Your task to perform on an android device: Open Yahoo.com Image 0: 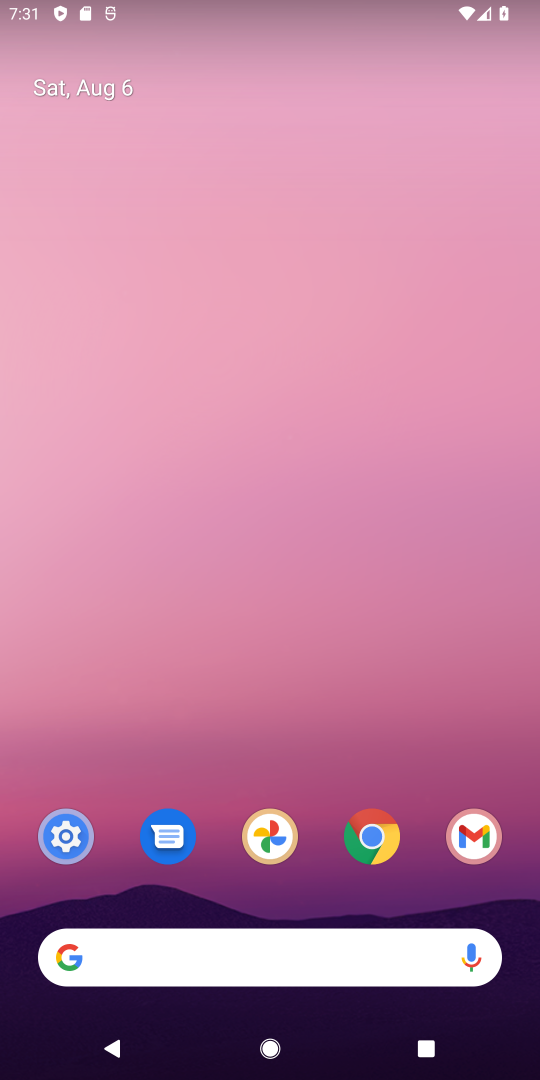
Step 0: drag from (242, 944) to (335, 283)
Your task to perform on an android device: Open Yahoo.com Image 1: 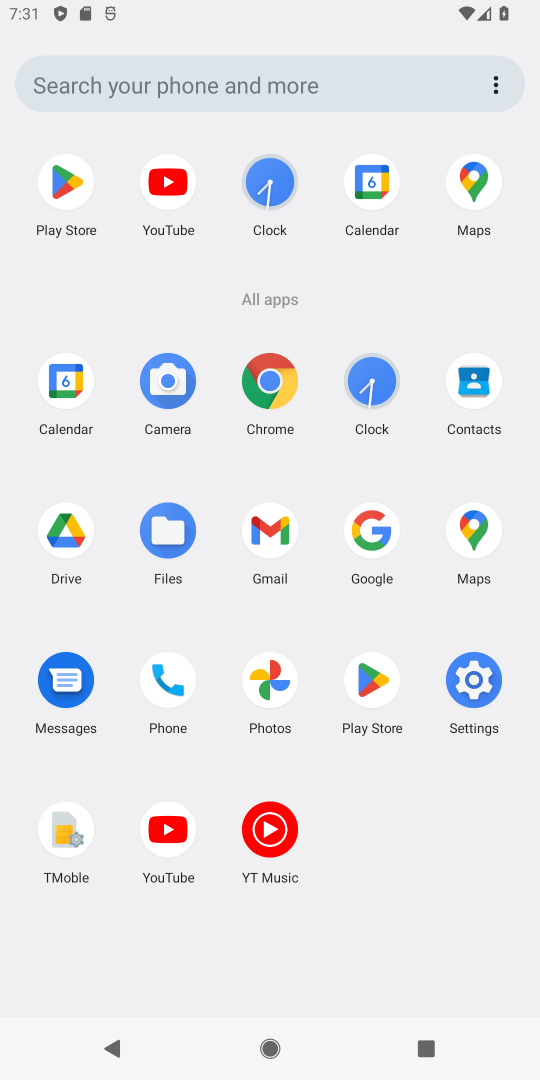
Step 1: click (375, 532)
Your task to perform on an android device: Open Yahoo.com Image 2: 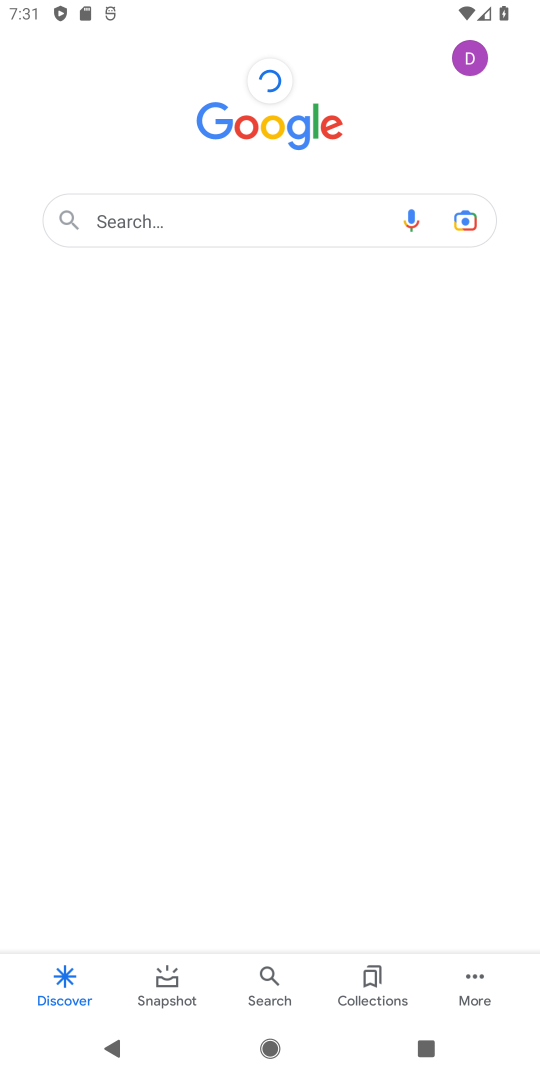
Step 2: click (256, 218)
Your task to perform on an android device: Open Yahoo.com Image 3: 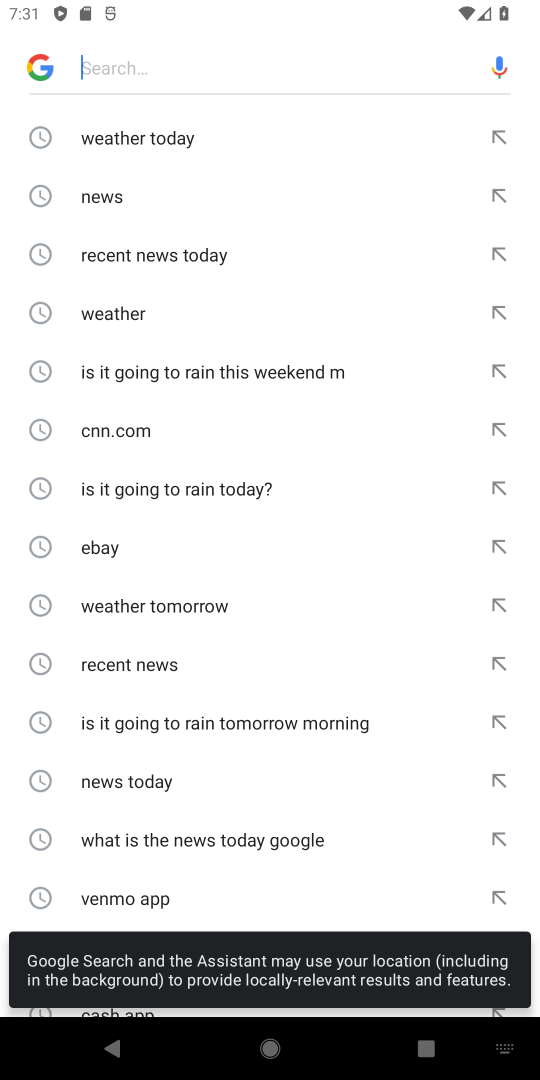
Step 3: drag from (123, 867) to (209, 406)
Your task to perform on an android device: Open Yahoo.com Image 4: 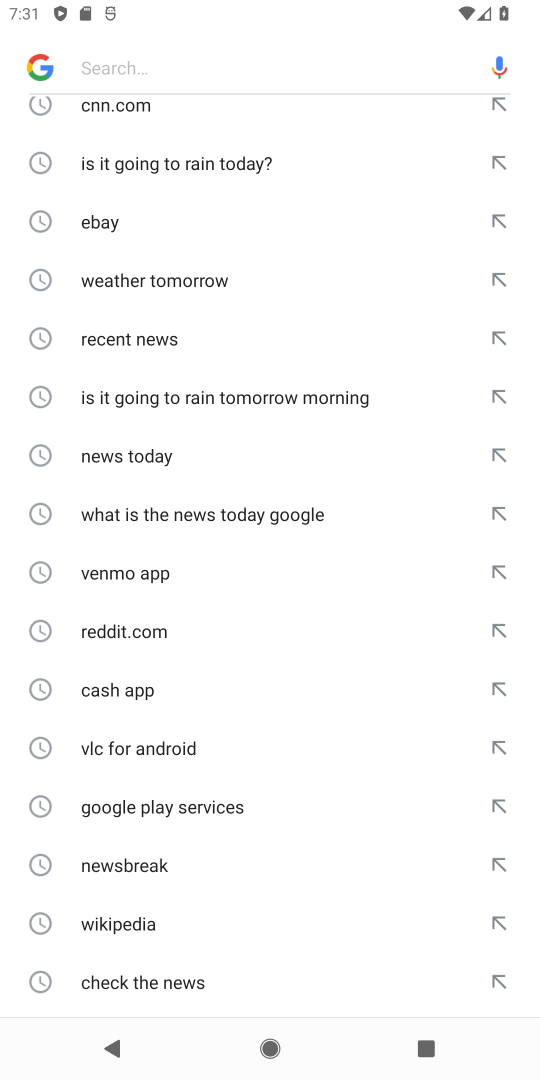
Step 4: drag from (132, 994) to (207, 506)
Your task to perform on an android device: Open Yahoo.com Image 5: 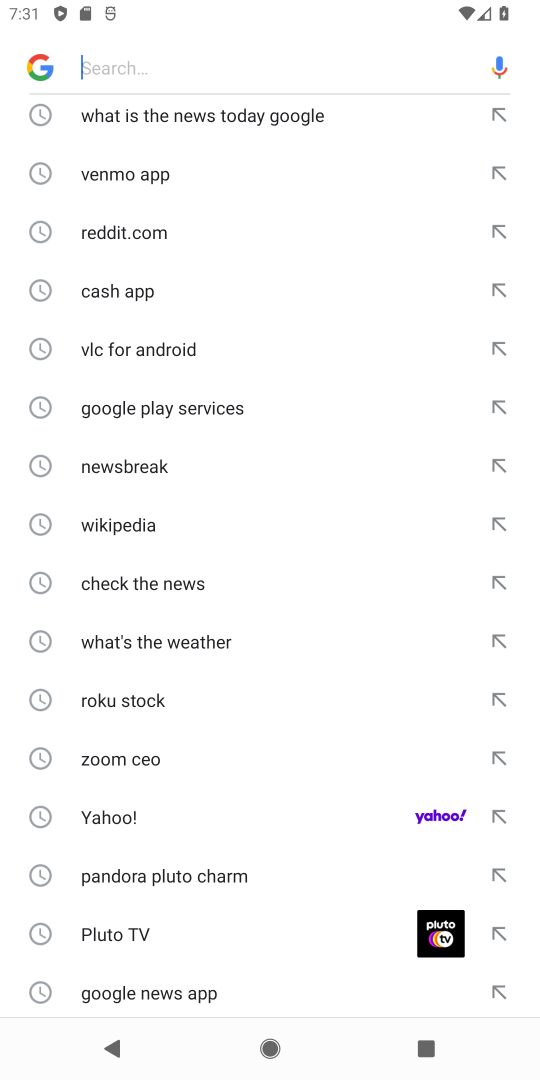
Step 5: click (124, 828)
Your task to perform on an android device: Open Yahoo.com Image 6: 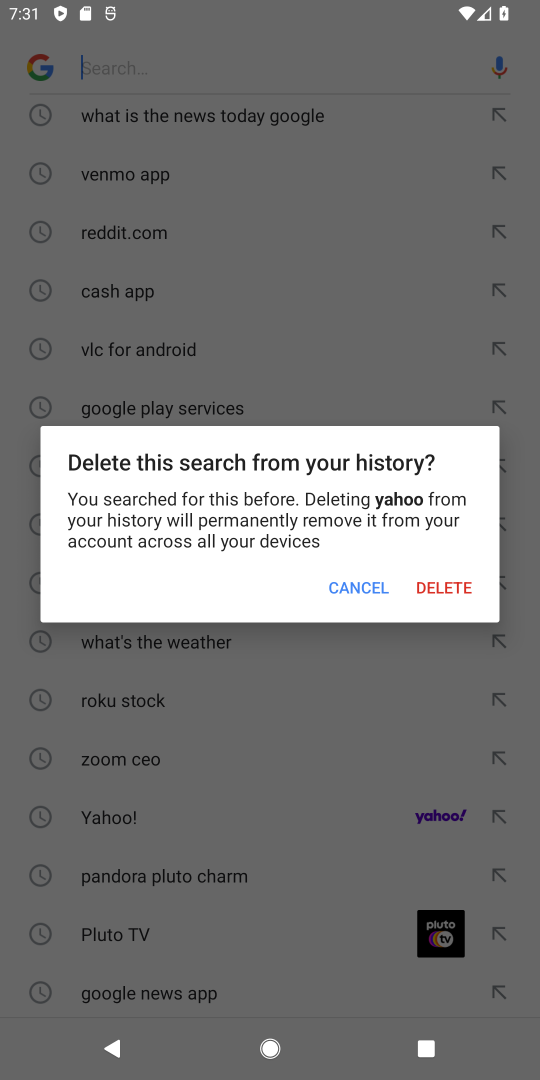
Step 6: click (361, 585)
Your task to perform on an android device: Open Yahoo.com Image 7: 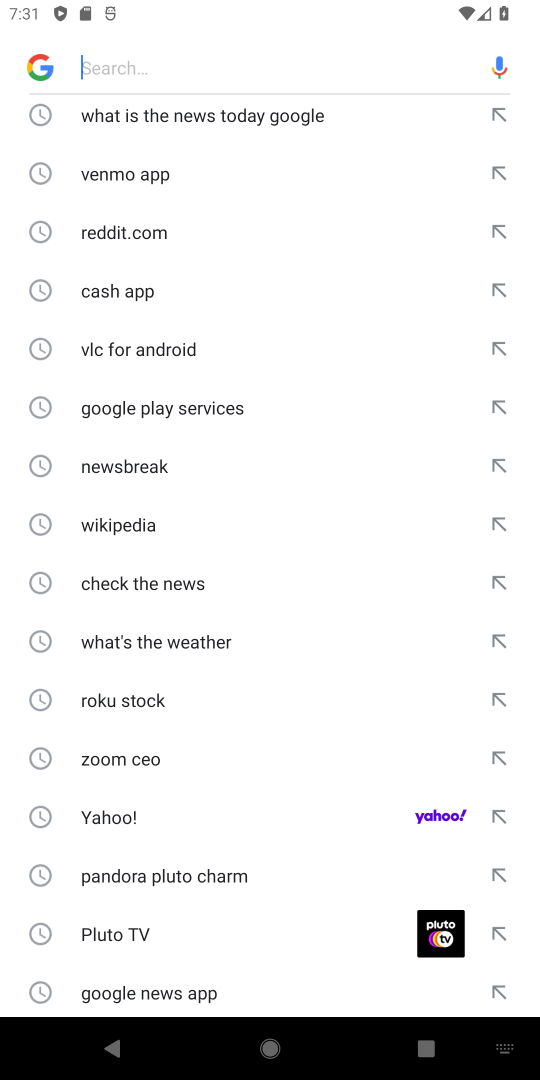
Step 7: click (154, 818)
Your task to perform on an android device: Open Yahoo.com Image 8: 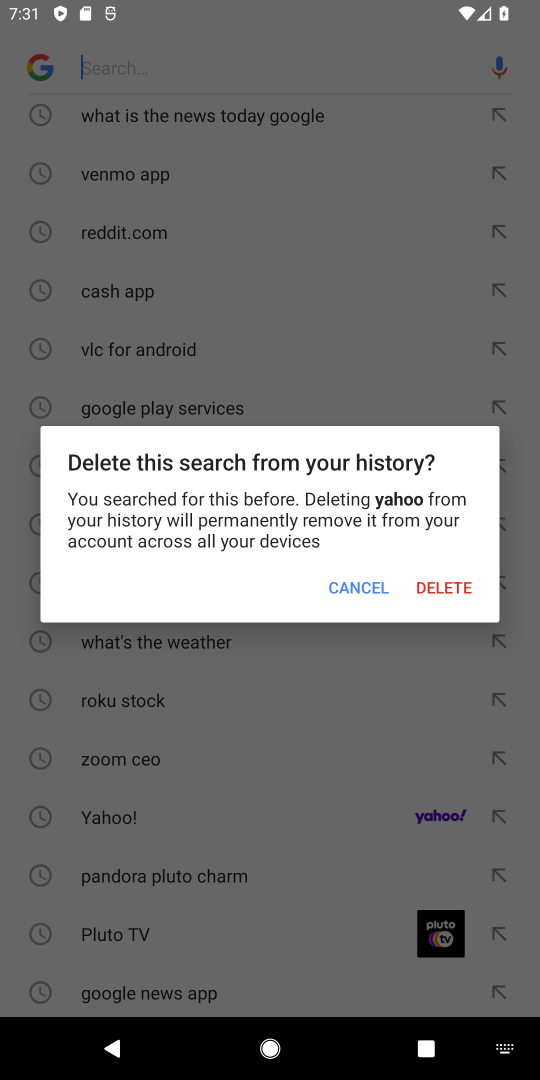
Step 8: click (348, 592)
Your task to perform on an android device: Open Yahoo.com Image 9: 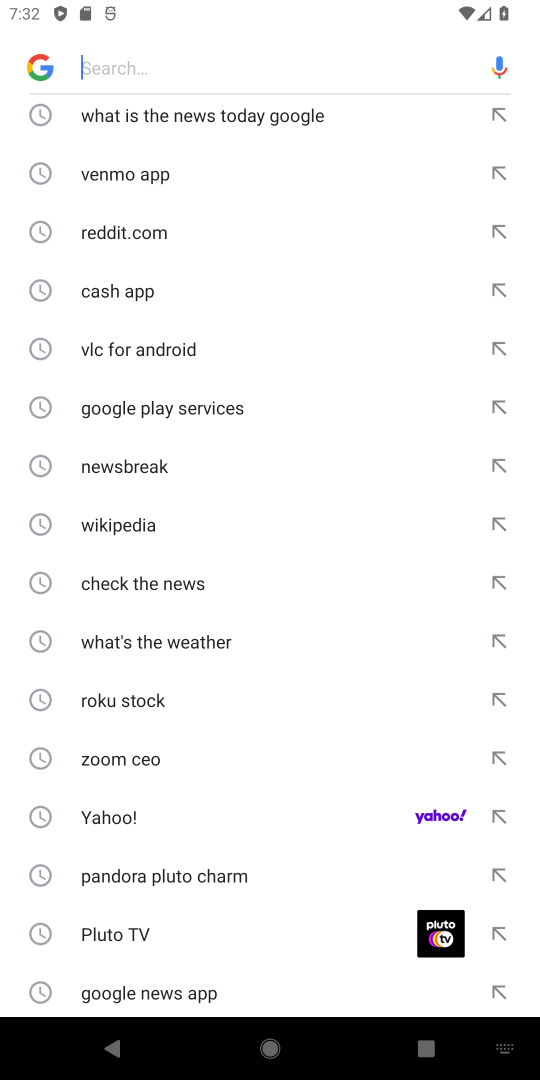
Step 9: click (464, 809)
Your task to perform on an android device: Open Yahoo.com Image 10: 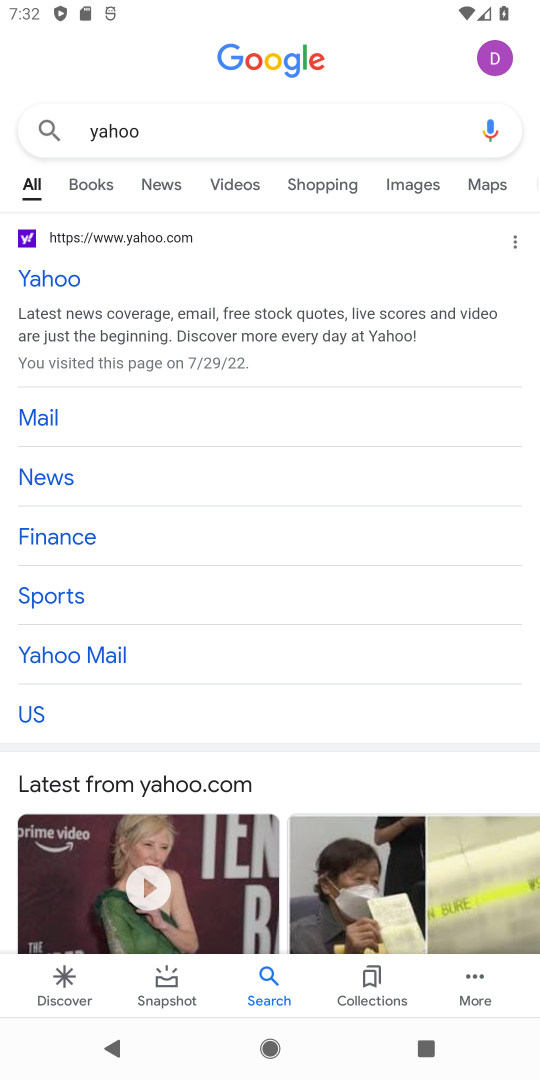
Step 10: task complete